Your task to perform on an android device: Open Youtube and go to "Your channel" Image 0: 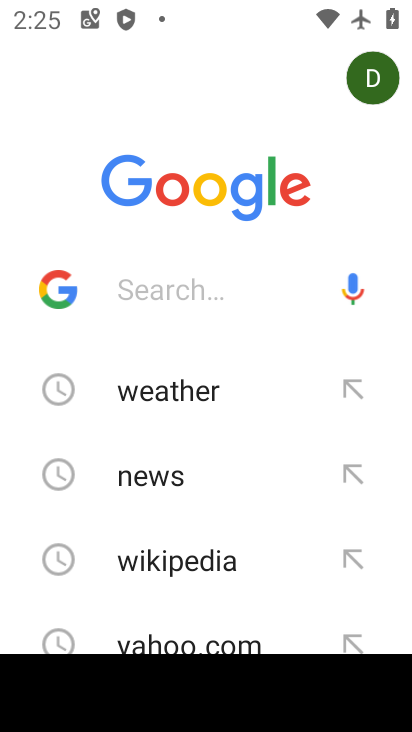
Step 0: press home button
Your task to perform on an android device: Open Youtube and go to "Your channel" Image 1: 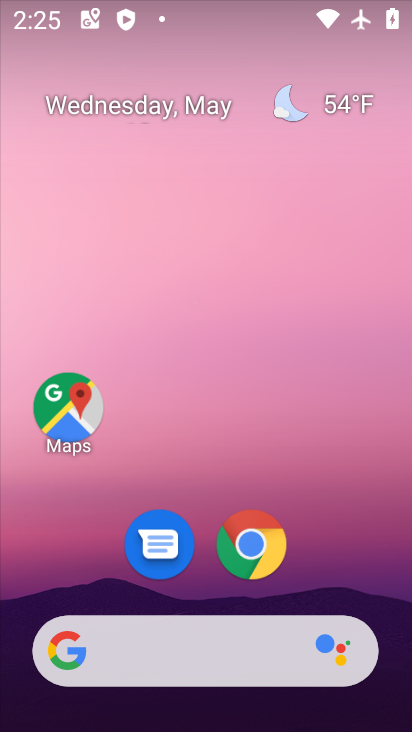
Step 1: drag from (333, 570) to (279, 144)
Your task to perform on an android device: Open Youtube and go to "Your channel" Image 2: 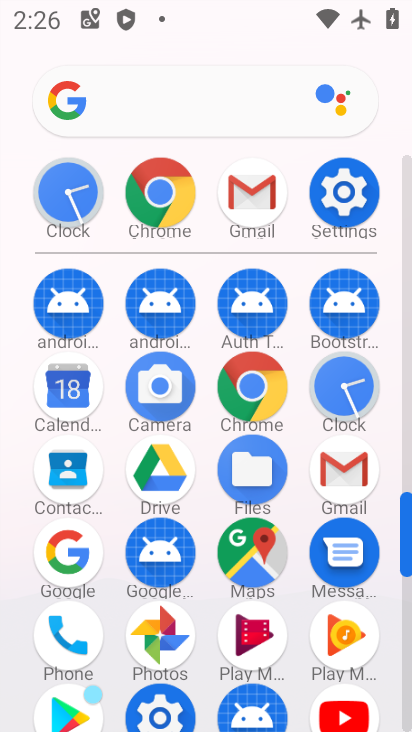
Step 2: click (330, 716)
Your task to perform on an android device: Open Youtube and go to "Your channel" Image 3: 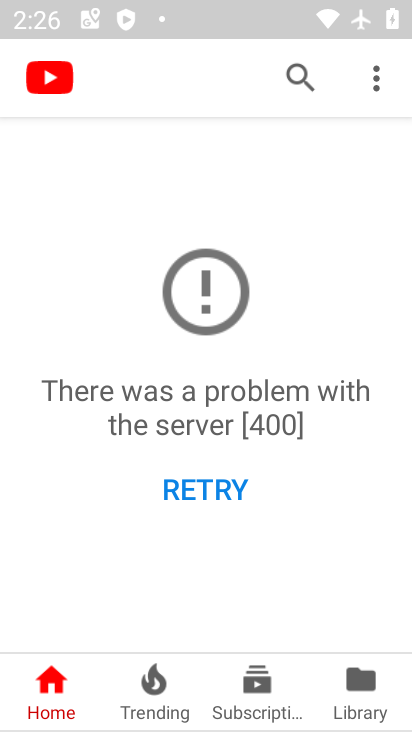
Step 3: click (224, 503)
Your task to perform on an android device: Open Youtube and go to "Your channel" Image 4: 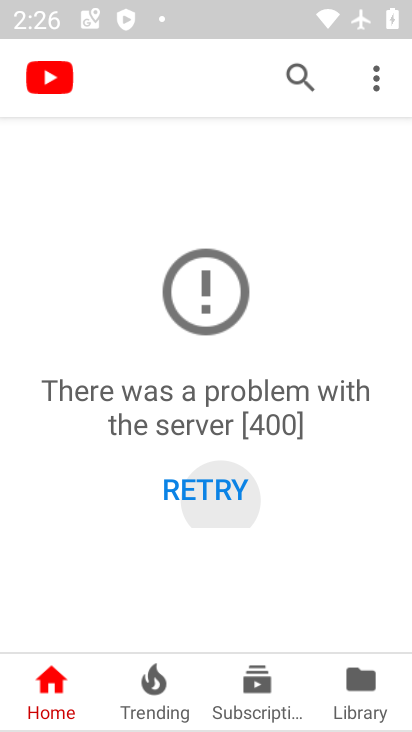
Step 4: click (224, 503)
Your task to perform on an android device: Open Youtube and go to "Your channel" Image 5: 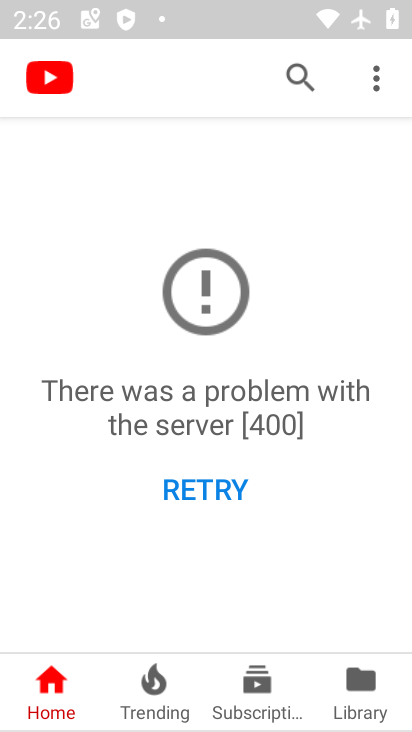
Step 5: task complete